Your task to perform on an android device: Open Chrome and go to the settings page Image 0: 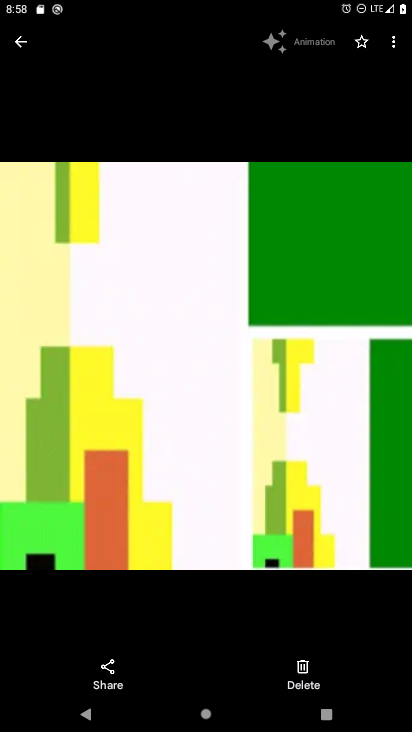
Step 0: press home button
Your task to perform on an android device: Open Chrome and go to the settings page Image 1: 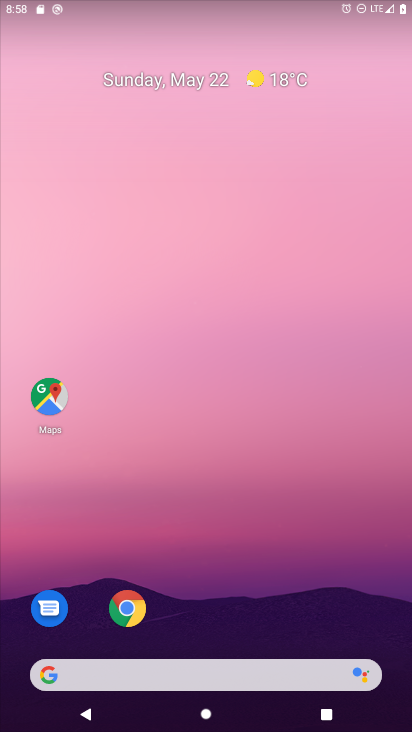
Step 1: click (123, 606)
Your task to perform on an android device: Open Chrome and go to the settings page Image 2: 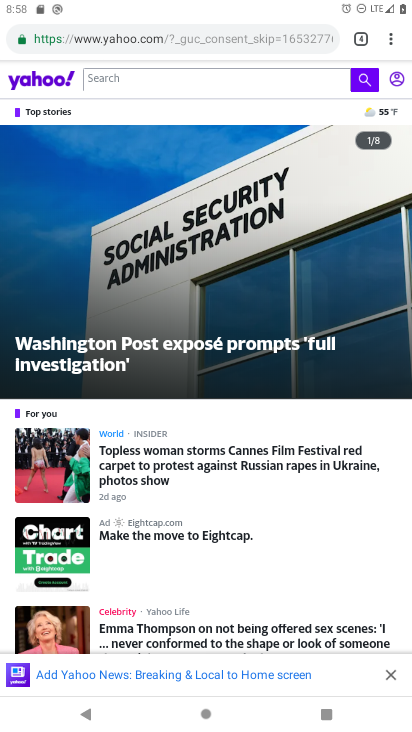
Step 2: click (391, 40)
Your task to perform on an android device: Open Chrome and go to the settings page Image 3: 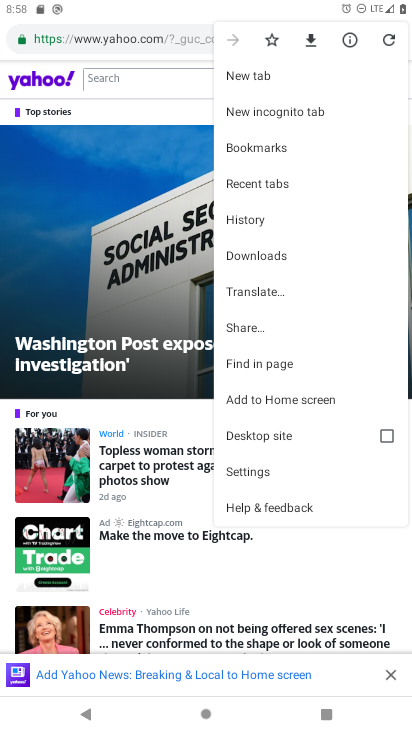
Step 3: click (255, 470)
Your task to perform on an android device: Open Chrome and go to the settings page Image 4: 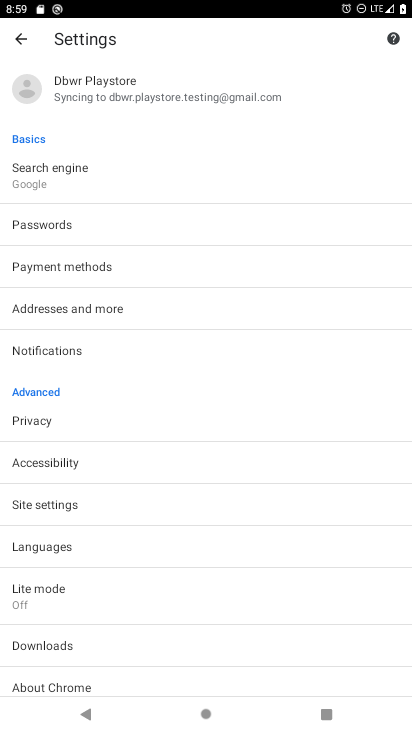
Step 4: task complete